Your task to perform on an android device: show emergency info Image 0: 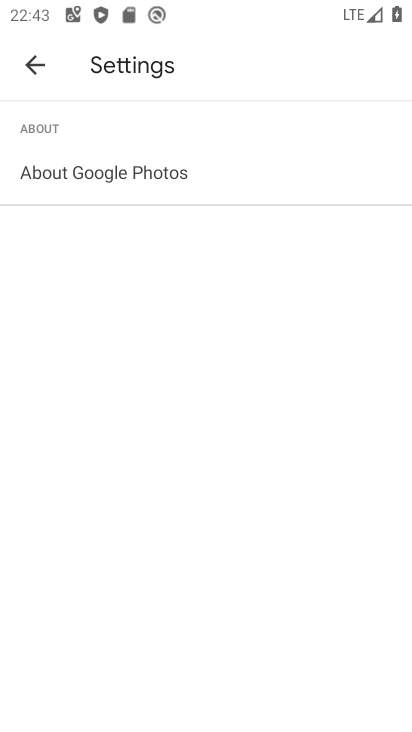
Step 0: press home button
Your task to perform on an android device: show emergency info Image 1: 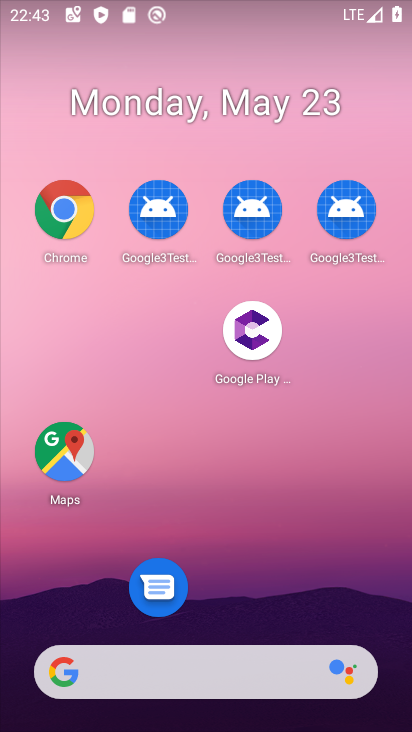
Step 1: click (280, 671)
Your task to perform on an android device: show emergency info Image 2: 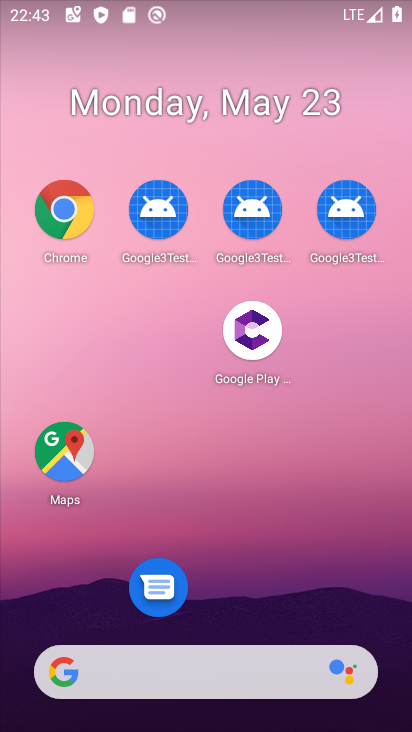
Step 2: click (280, 671)
Your task to perform on an android device: show emergency info Image 3: 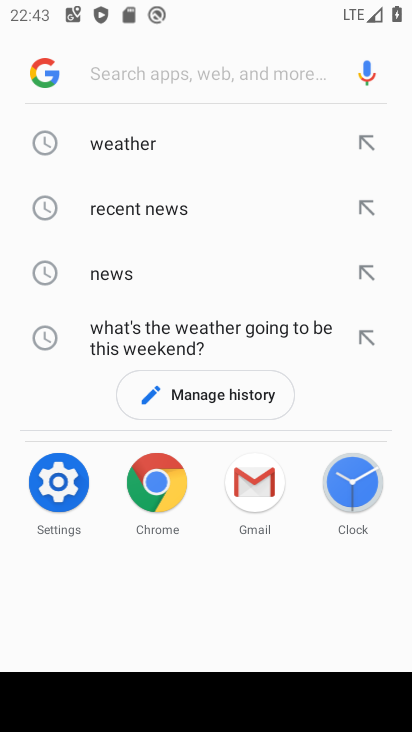
Step 3: press home button
Your task to perform on an android device: show emergency info Image 4: 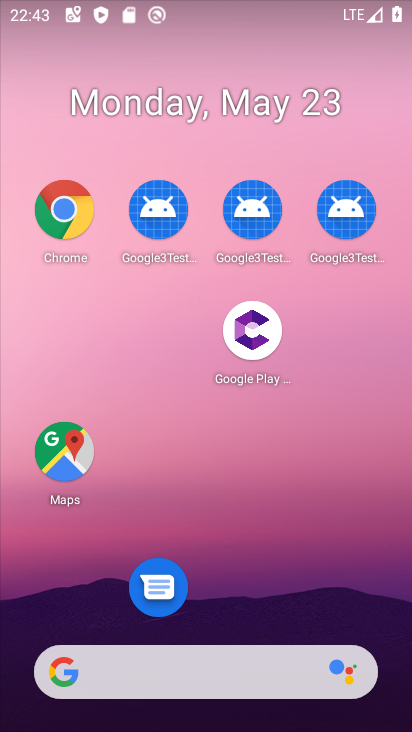
Step 4: drag from (284, 561) to (270, 228)
Your task to perform on an android device: show emergency info Image 5: 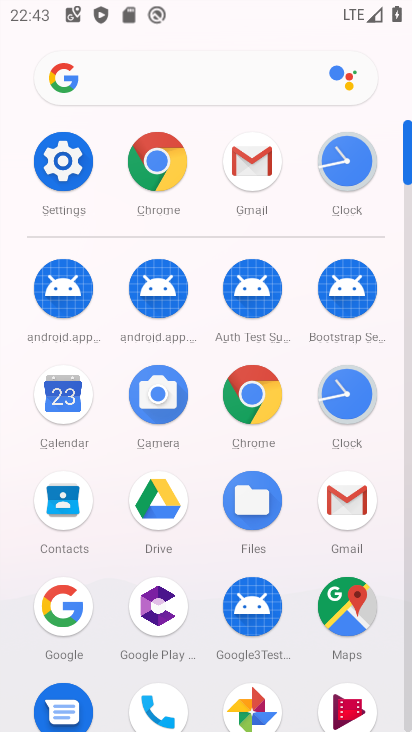
Step 5: click (53, 183)
Your task to perform on an android device: show emergency info Image 6: 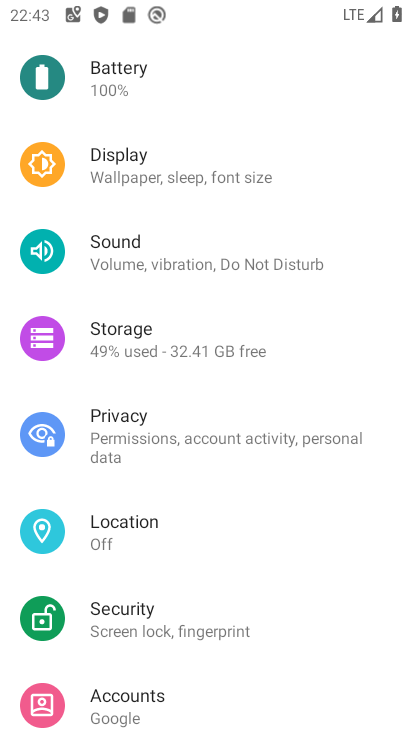
Step 6: drag from (256, 321) to (277, 534)
Your task to perform on an android device: show emergency info Image 7: 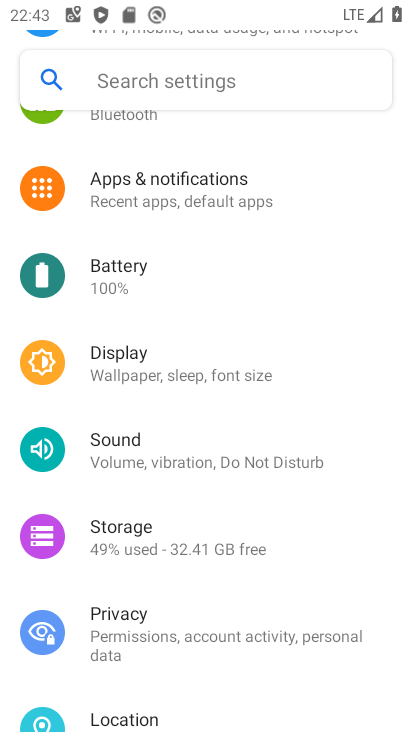
Step 7: drag from (230, 316) to (243, 479)
Your task to perform on an android device: show emergency info Image 8: 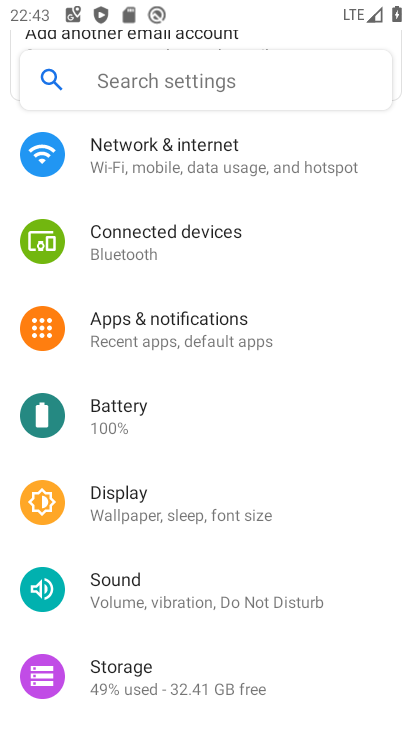
Step 8: drag from (238, 295) to (225, 569)
Your task to perform on an android device: show emergency info Image 9: 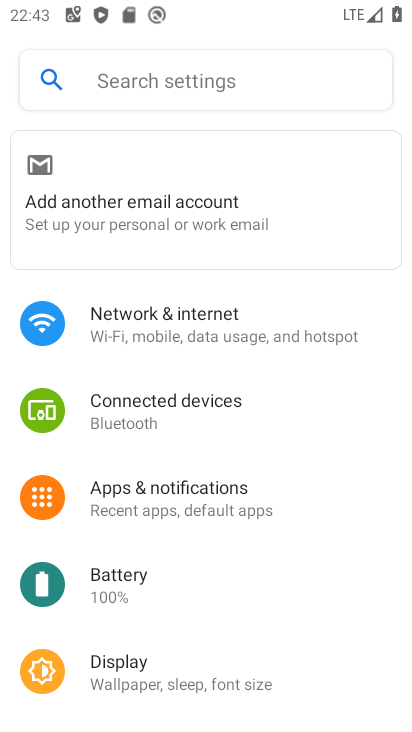
Step 9: drag from (247, 541) to (237, 260)
Your task to perform on an android device: show emergency info Image 10: 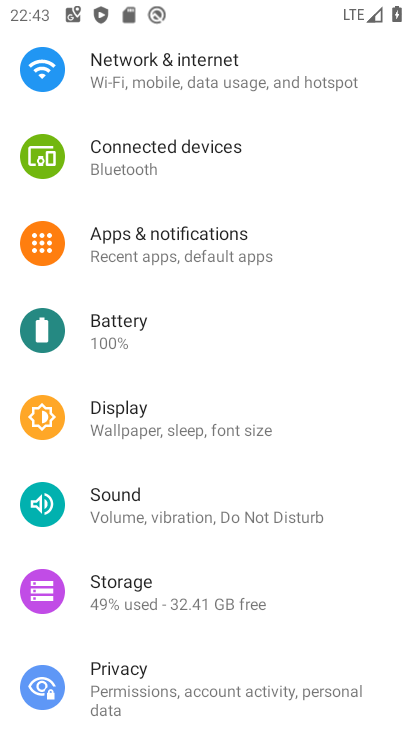
Step 10: drag from (225, 491) to (197, 217)
Your task to perform on an android device: show emergency info Image 11: 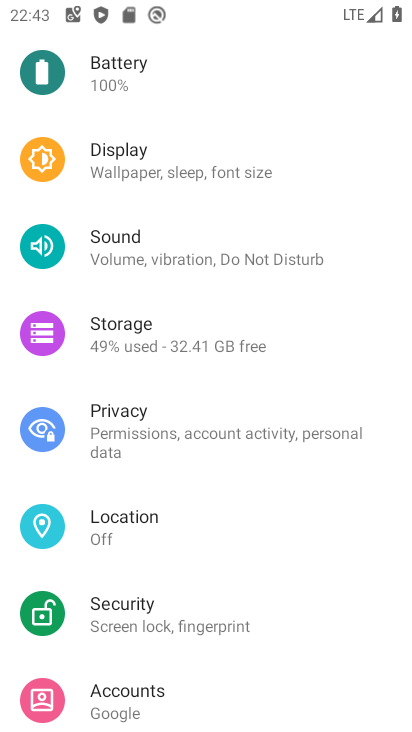
Step 11: drag from (168, 597) to (156, 338)
Your task to perform on an android device: show emergency info Image 12: 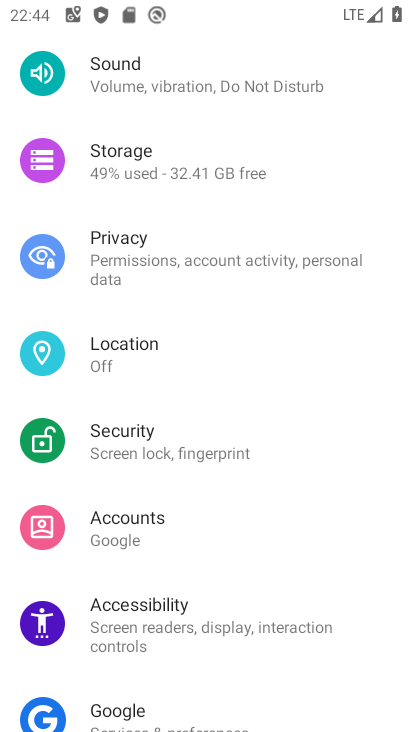
Step 12: drag from (245, 699) to (221, 435)
Your task to perform on an android device: show emergency info Image 13: 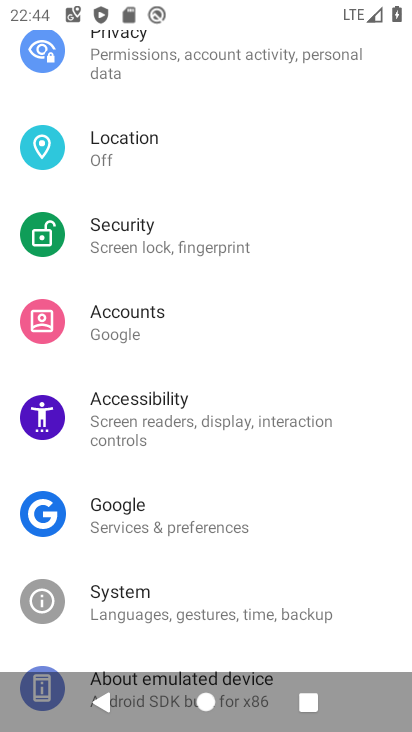
Step 13: drag from (248, 567) to (229, 341)
Your task to perform on an android device: show emergency info Image 14: 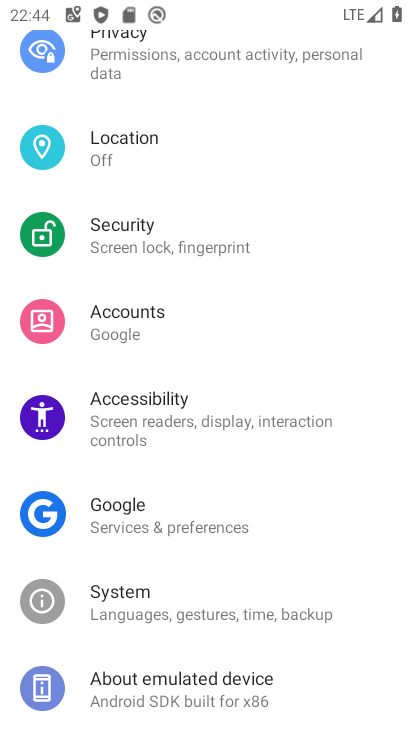
Step 14: click (170, 675)
Your task to perform on an android device: show emergency info Image 15: 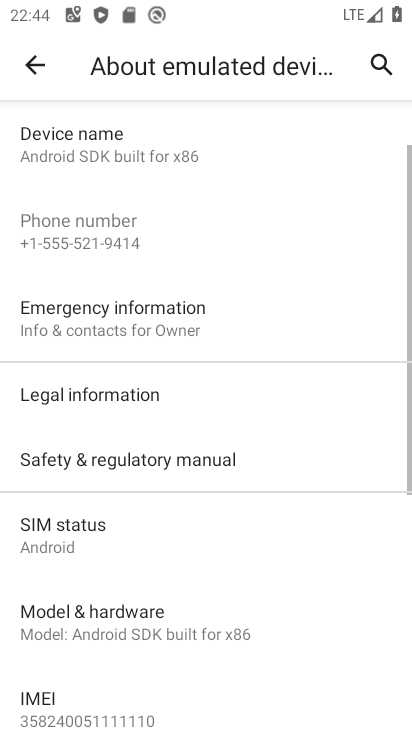
Step 15: click (143, 315)
Your task to perform on an android device: show emergency info Image 16: 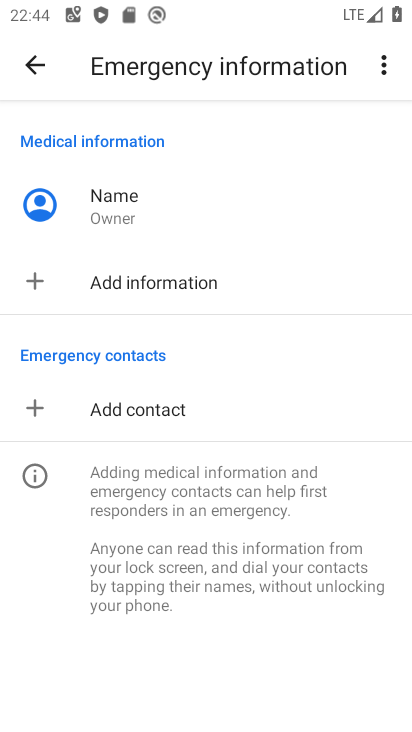
Step 16: task complete